Your task to perform on an android device: Open Google Chrome and open the bookmarks view Image 0: 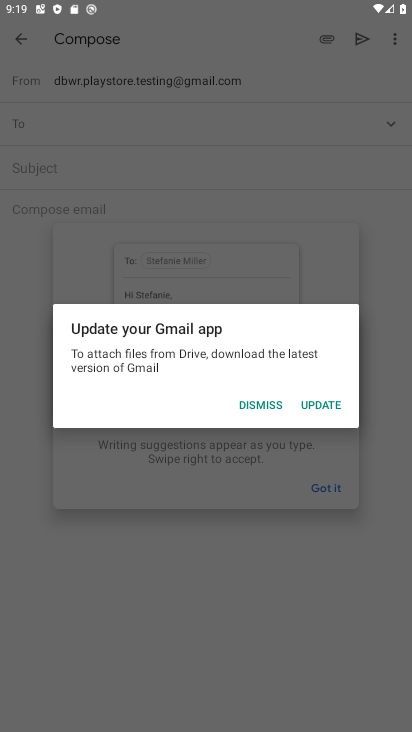
Step 0: press home button
Your task to perform on an android device: Open Google Chrome and open the bookmarks view Image 1: 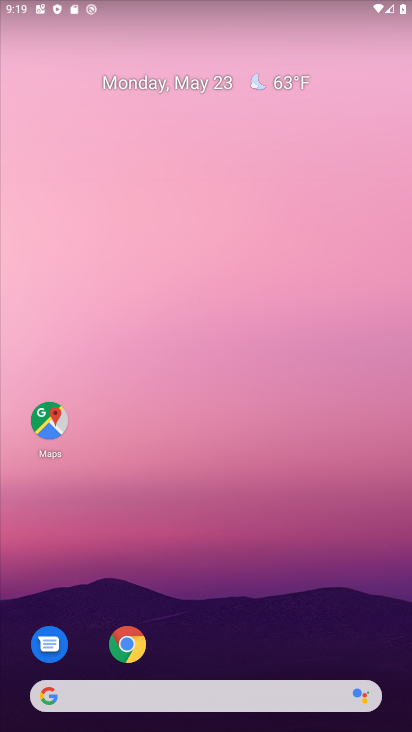
Step 1: click (119, 639)
Your task to perform on an android device: Open Google Chrome and open the bookmarks view Image 2: 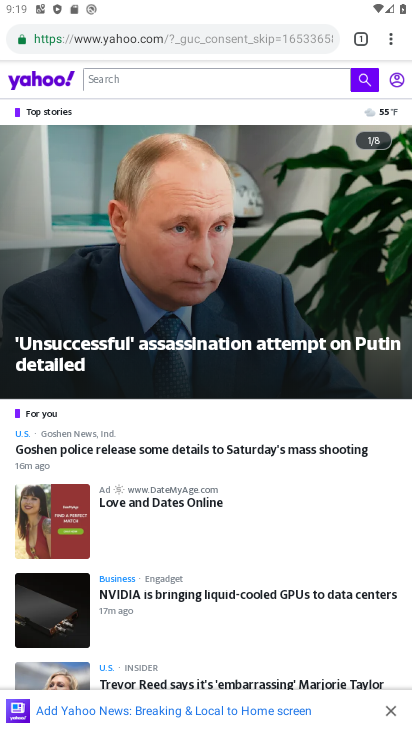
Step 2: click (388, 35)
Your task to perform on an android device: Open Google Chrome and open the bookmarks view Image 3: 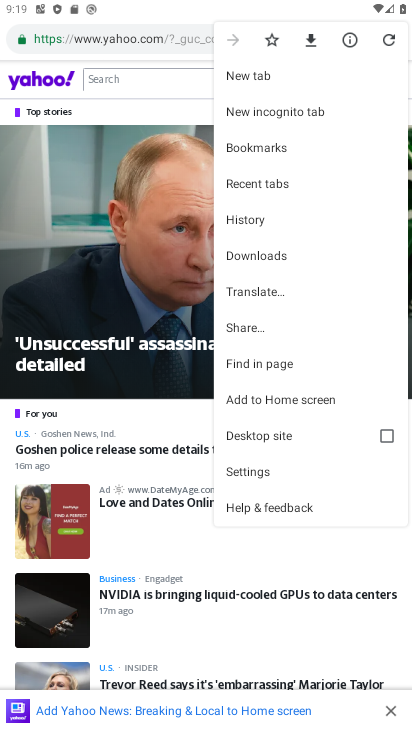
Step 3: click (289, 143)
Your task to perform on an android device: Open Google Chrome and open the bookmarks view Image 4: 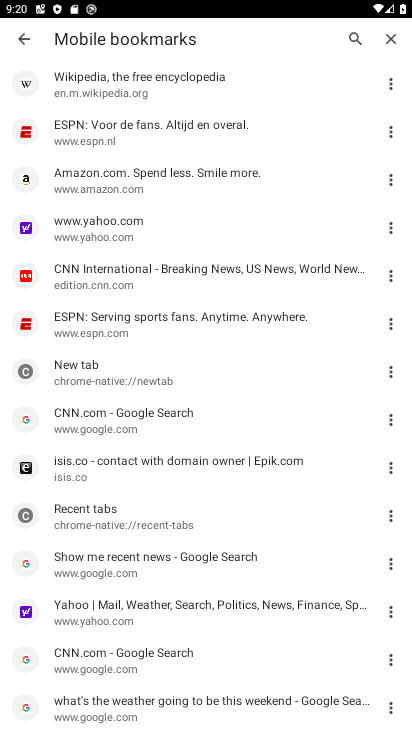
Step 4: click (151, 464)
Your task to perform on an android device: Open Google Chrome and open the bookmarks view Image 5: 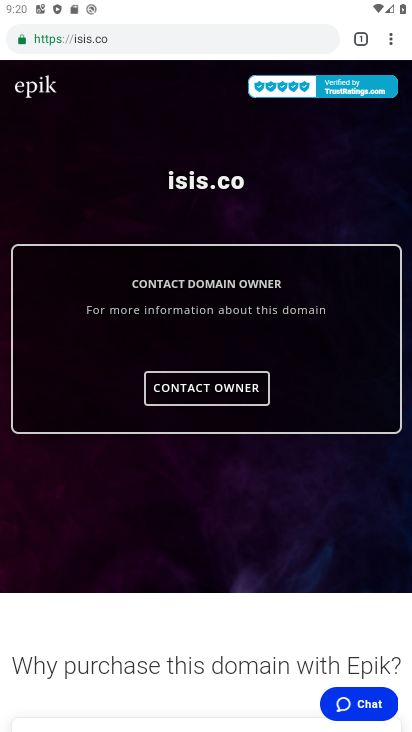
Step 5: task complete